Your task to perform on an android device: make emails show in primary in the gmail app Image 0: 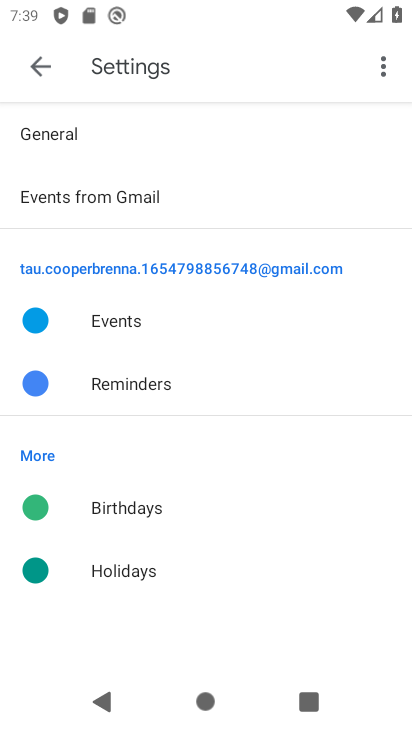
Step 0: press home button
Your task to perform on an android device: make emails show in primary in the gmail app Image 1: 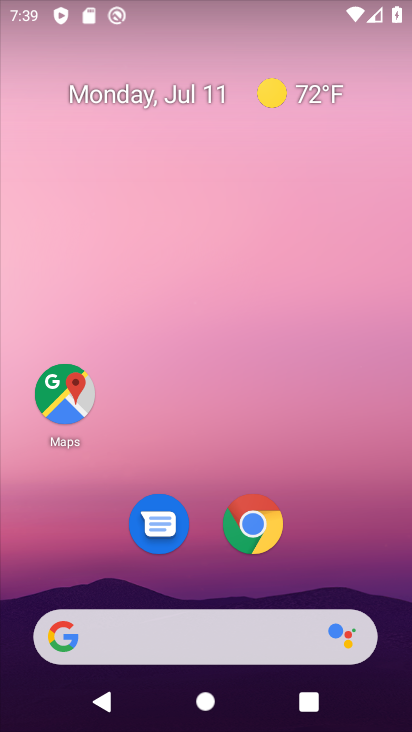
Step 1: drag from (322, 498) to (299, 6)
Your task to perform on an android device: make emails show in primary in the gmail app Image 2: 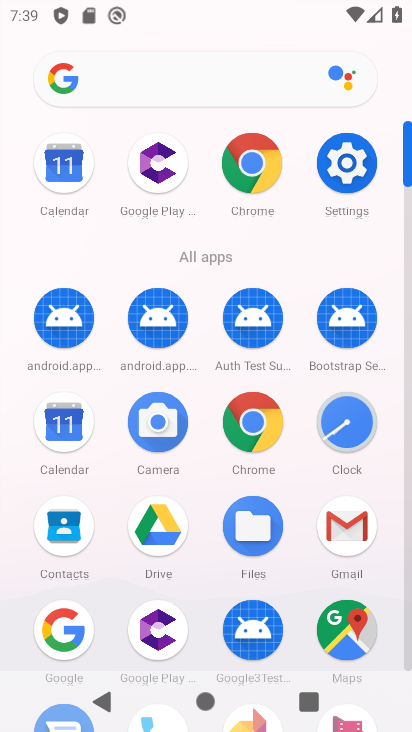
Step 2: click (335, 521)
Your task to perform on an android device: make emails show in primary in the gmail app Image 3: 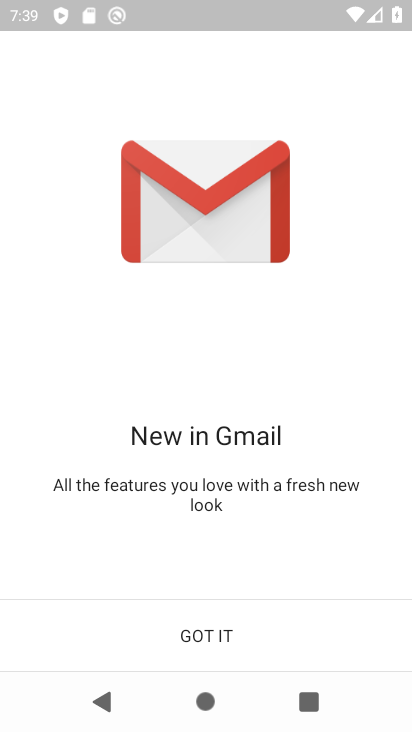
Step 3: click (253, 630)
Your task to perform on an android device: make emails show in primary in the gmail app Image 4: 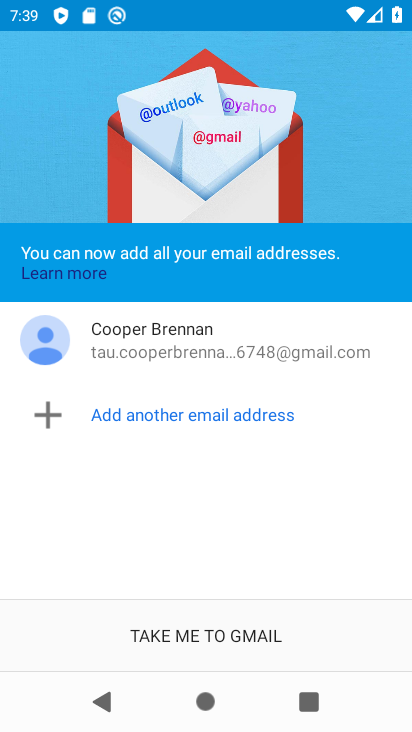
Step 4: click (253, 630)
Your task to perform on an android device: make emails show in primary in the gmail app Image 5: 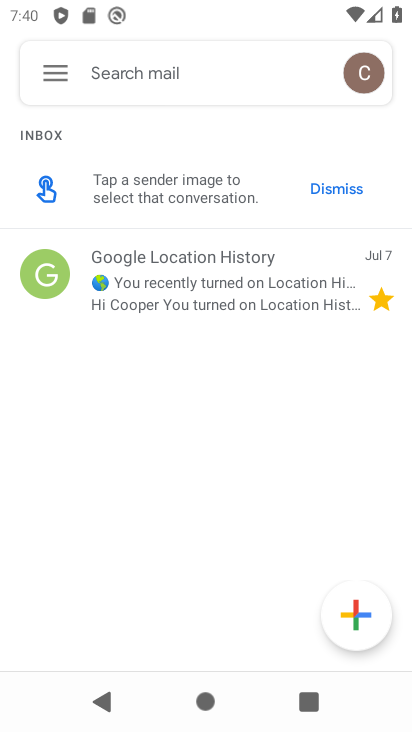
Step 5: click (54, 68)
Your task to perform on an android device: make emails show in primary in the gmail app Image 6: 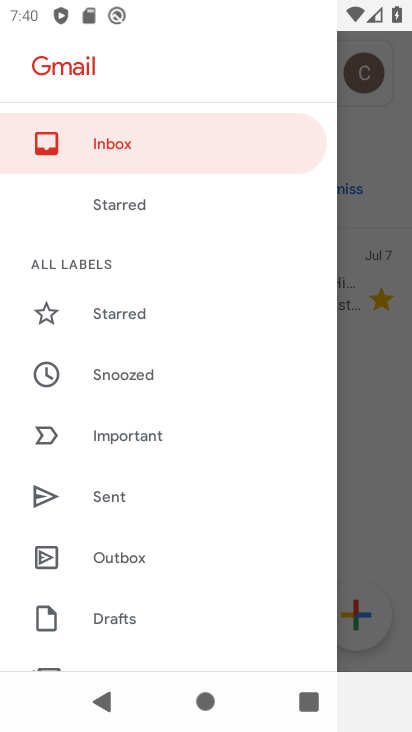
Step 6: drag from (191, 587) to (201, 136)
Your task to perform on an android device: make emails show in primary in the gmail app Image 7: 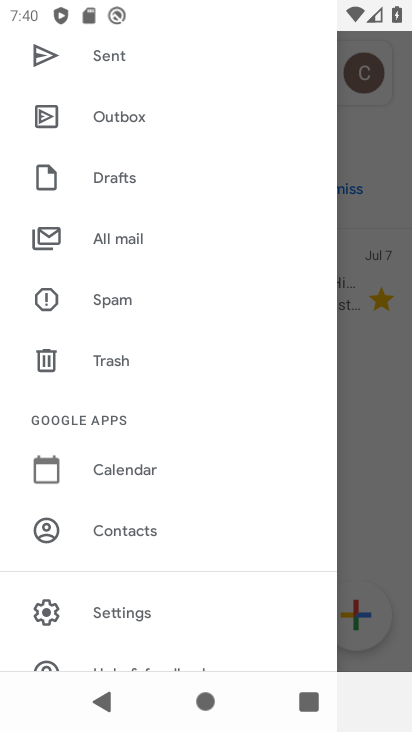
Step 7: click (128, 612)
Your task to perform on an android device: make emails show in primary in the gmail app Image 8: 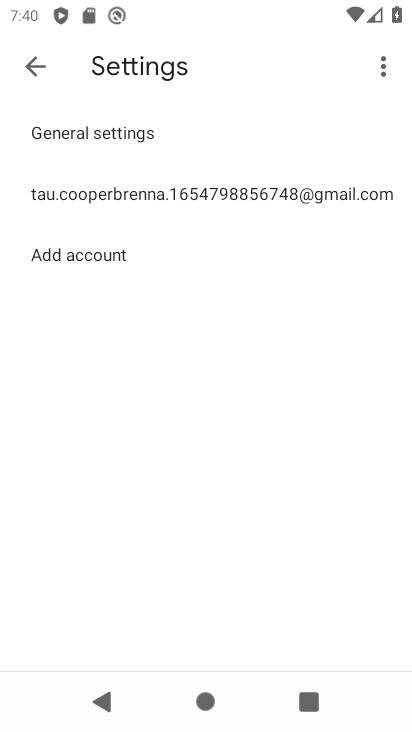
Step 8: click (201, 200)
Your task to perform on an android device: make emails show in primary in the gmail app Image 9: 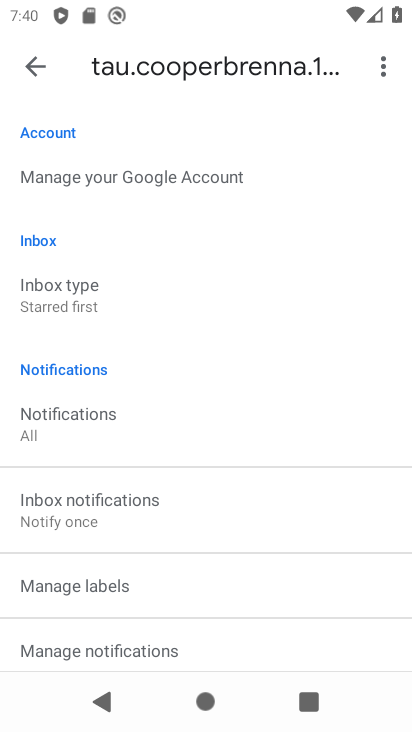
Step 9: click (85, 298)
Your task to perform on an android device: make emails show in primary in the gmail app Image 10: 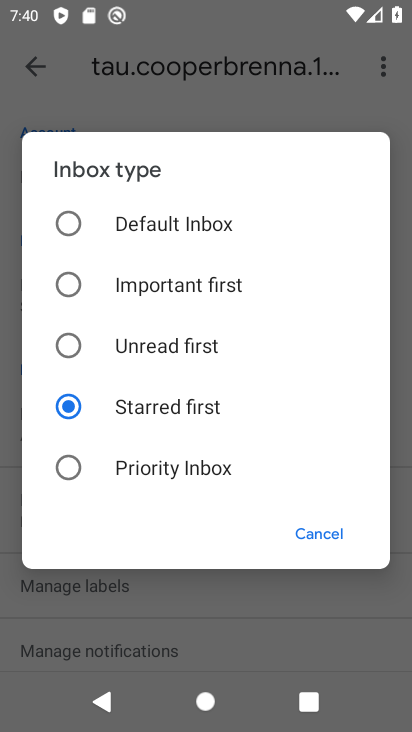
Step 10: click (67, 214)
Your task to perform on an android device: make emails show in primary in the gmail app Image 11: 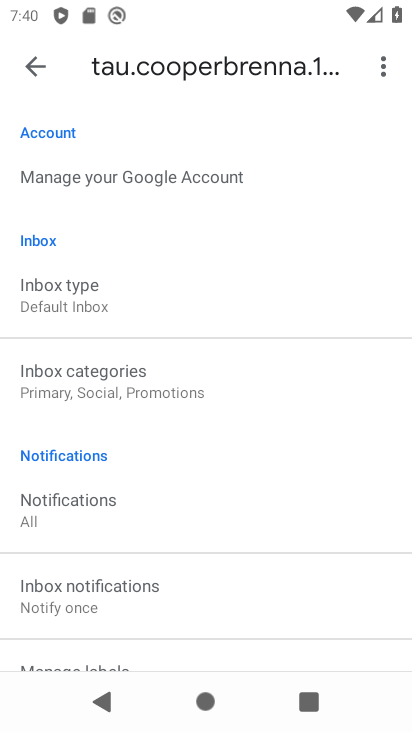
Step 11: click (123, 369)
Your task to perform on an android device: make emails show in primary in the gmail app Image 12: 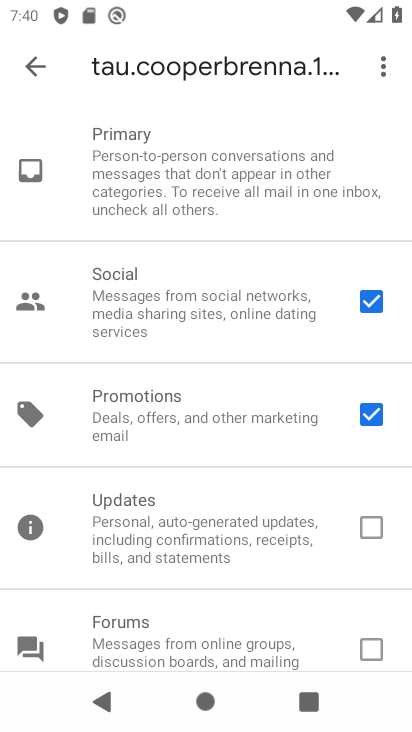
Step 12: click (380, 408)
Your task to perform on an android device: make emails show in primary in the gmail app Image 13: 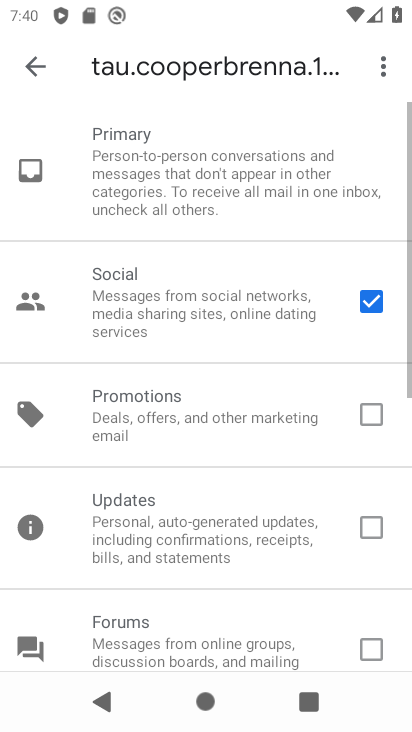
Step 13: click (377, 300)
Your task to perform on an android device: make emails show in primary in the gmail app Image 14: 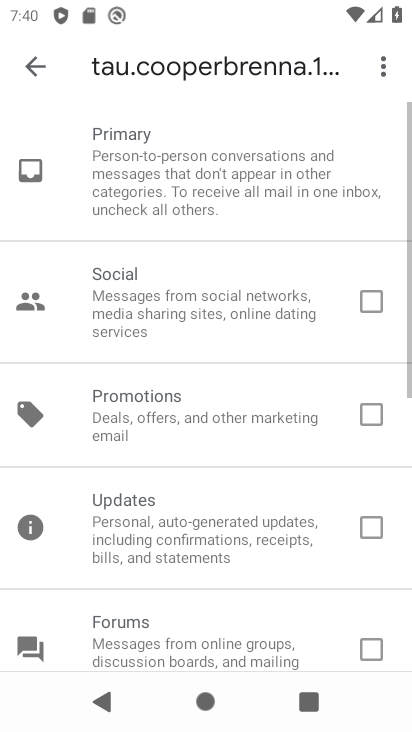
Step 14: click (37, 68)
Your task to perform on an android device: make emails show in primary in the gmail app Image 15: 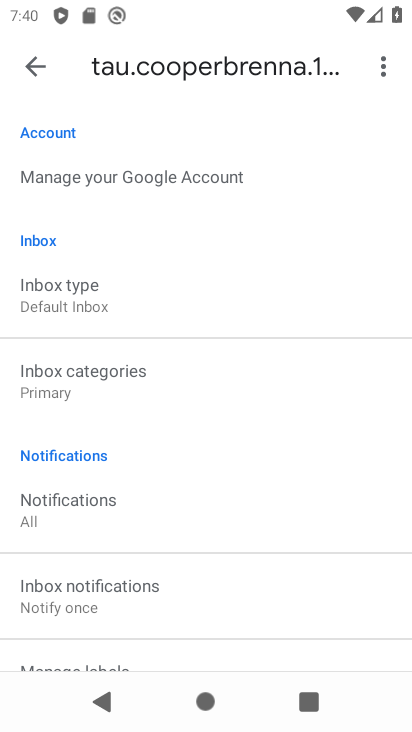
Step 15: task complete